Your task to perform on an android device: Open the phone app and click the voicemail tab. Image 0: 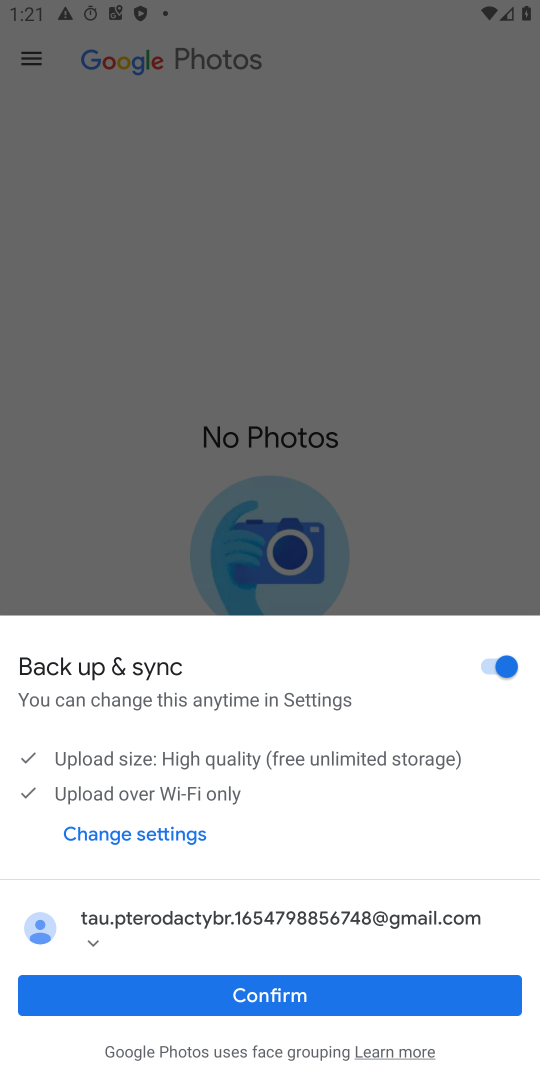
Step 0: press home button
Your task to perform on an android device: Open the phone app and click the voicemail tab. Image 1: 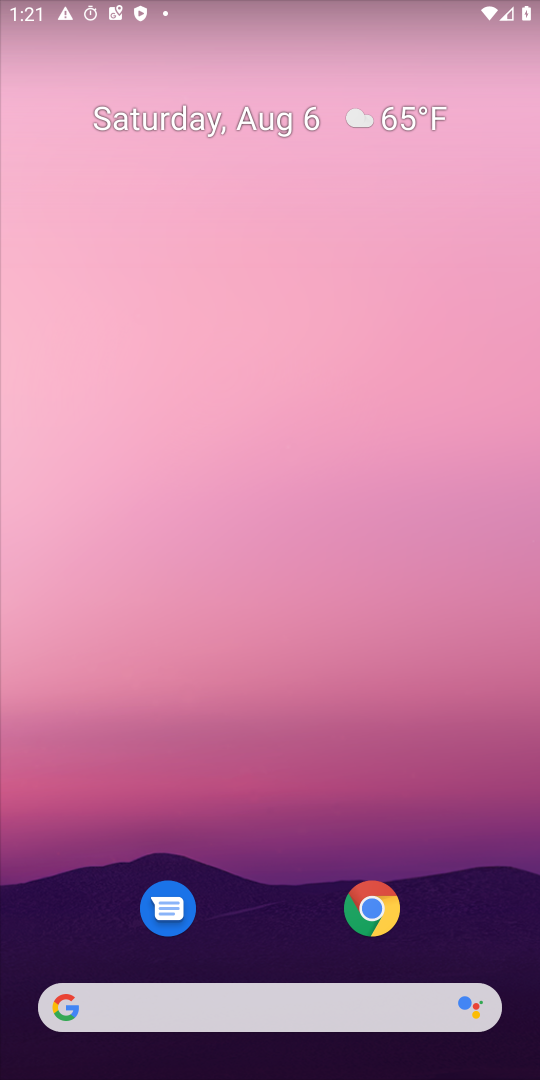
Step 1: drag from (275, 815) to (257, 237)
Your task to perform on an android device: Open the phone app and click the voicemail tab. Image 2: 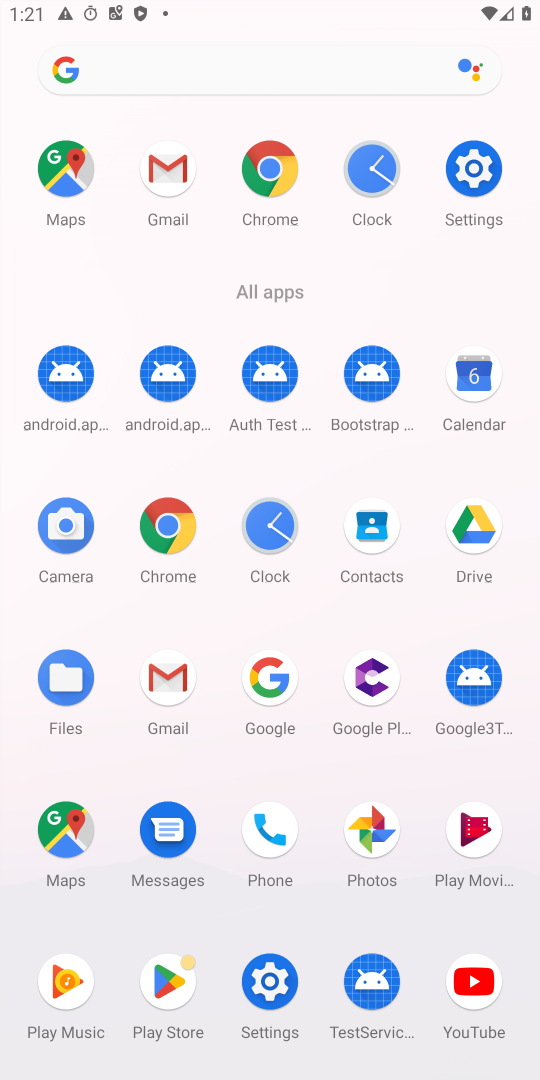
Step 2: click (272, 825)
Your task to perform on an android device: Open the phone app and click the voicemail tab. Image 3: 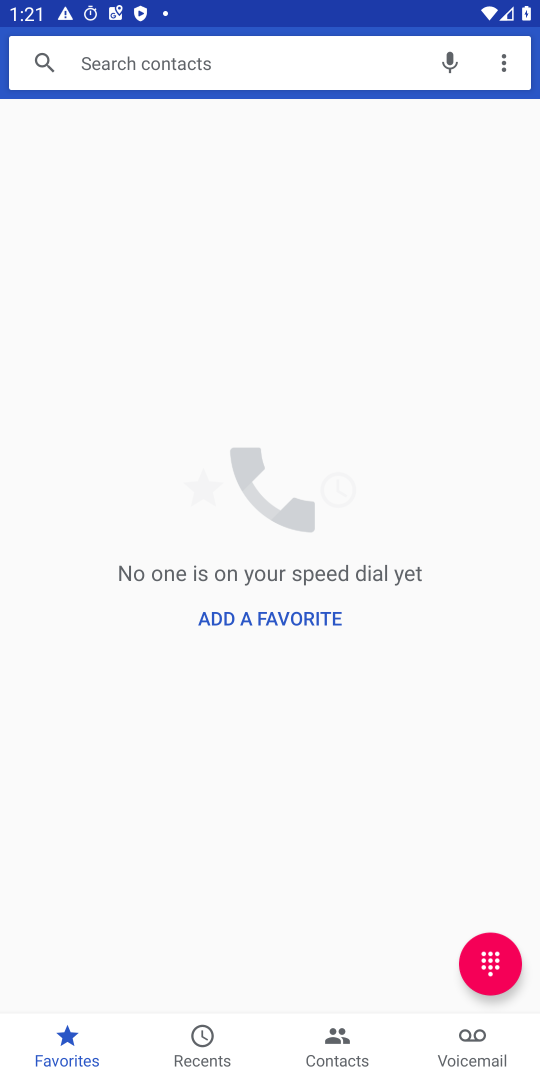
Step 3: click (469, 1056)
Your task to perform on an android device: Open the phone app and click the voicemail tab. Image 4: 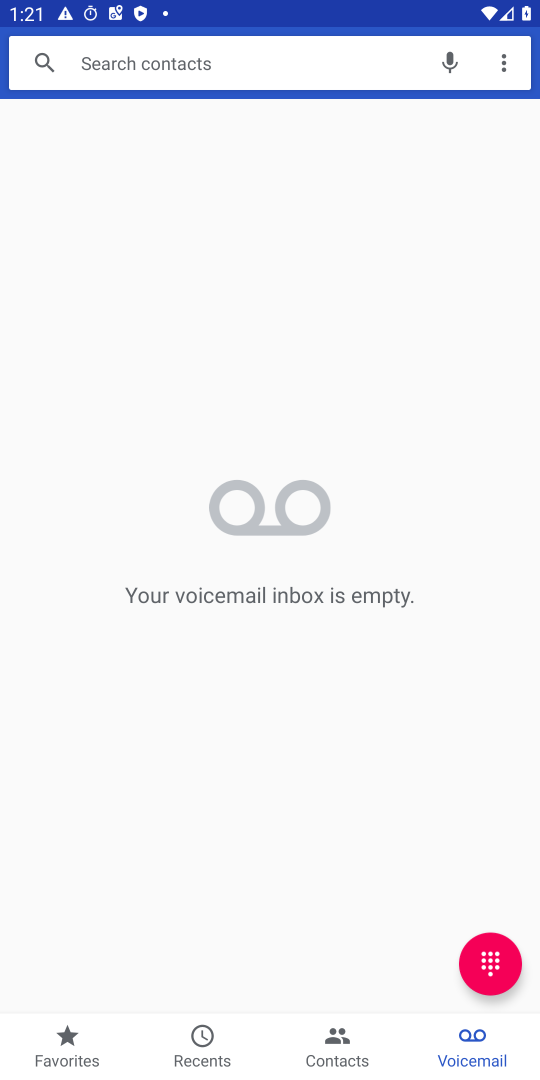
Step 4: task complete